Your task to perform on an android device: Go to Google Image 0: 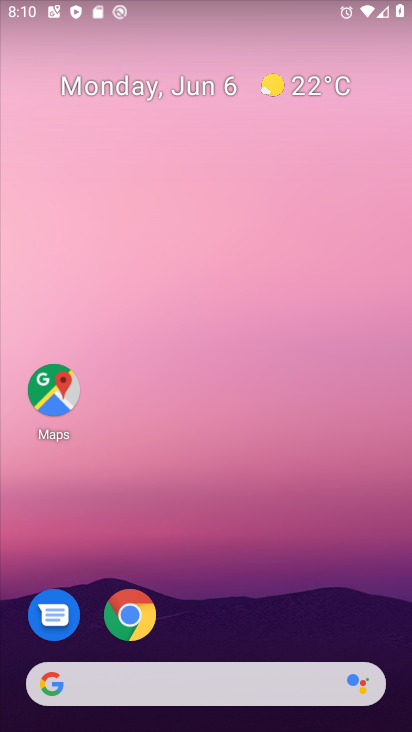
Step 0: drag from (389, 709) to (317, 94)
Your task to perform on an android device: Go to Google Image 1: 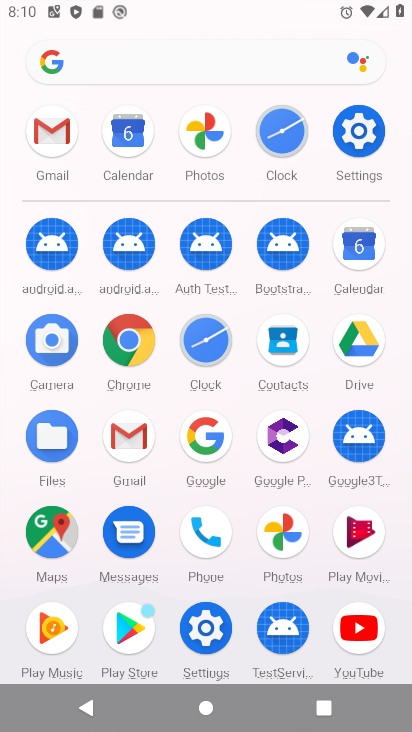
Step 1: click (219, 415)
Your task to perform on an android device: Go to Google Image 2: 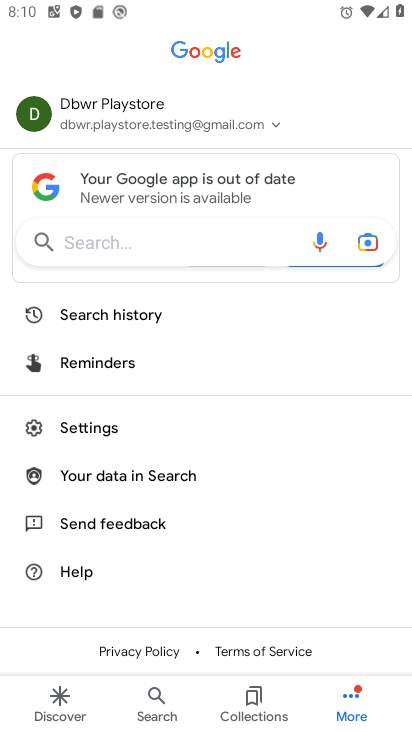
Step 2: task complete